Your task to perform on an android device: see sites visited before in the chrome app Image 0: 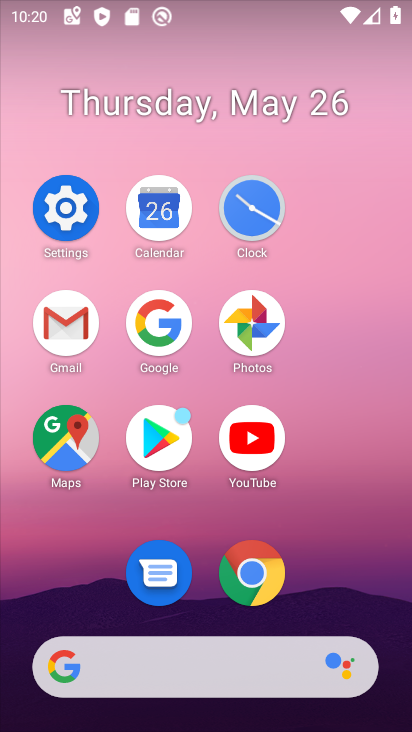
Step 0: click (274, 580)
Your task to perform on an android device: see sites visited before in the chrome app Image 1: 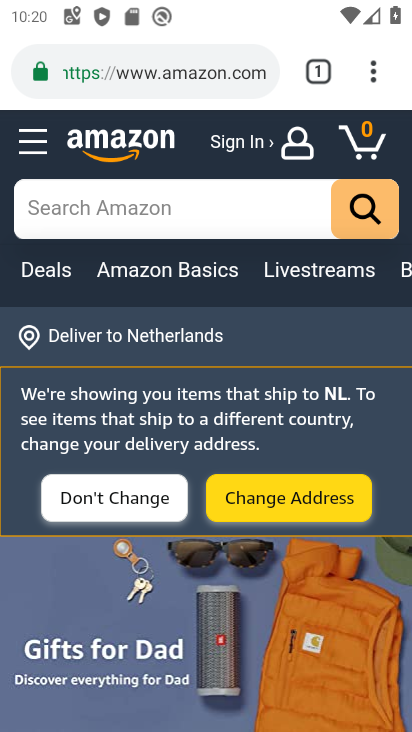
Step 1: click (373, 66)
Your task to perform on an android device: see sites visited before in the chrome app Image 2: 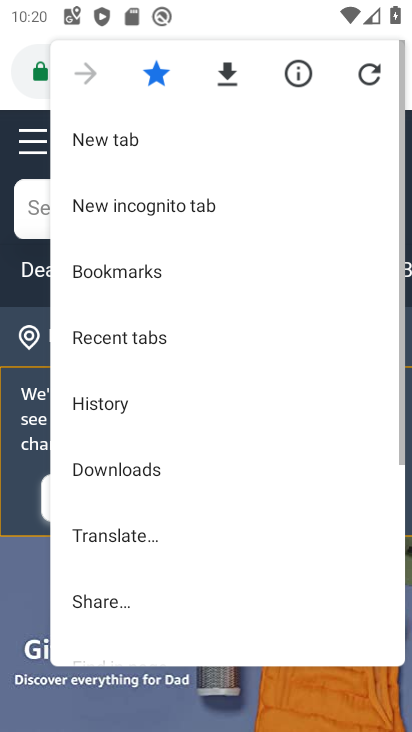
Step 2: click (152, 335)
Your task to perform on an android device: see sites visited before in the chrome app Image 3: 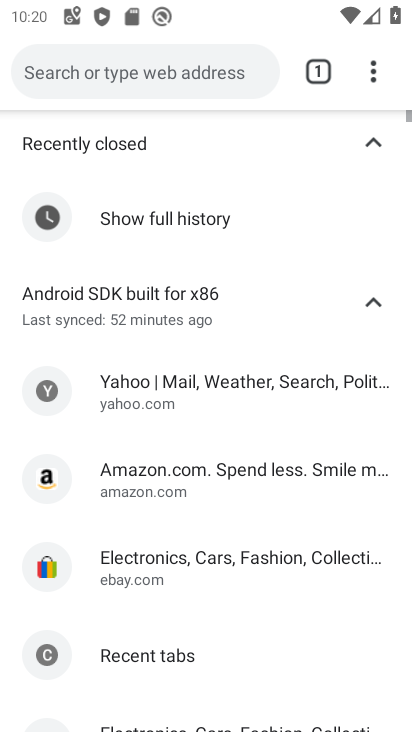
Step 3: click (127, 217)
Your task to perform on an android device: see sites visited before in the chrome app Image 4: 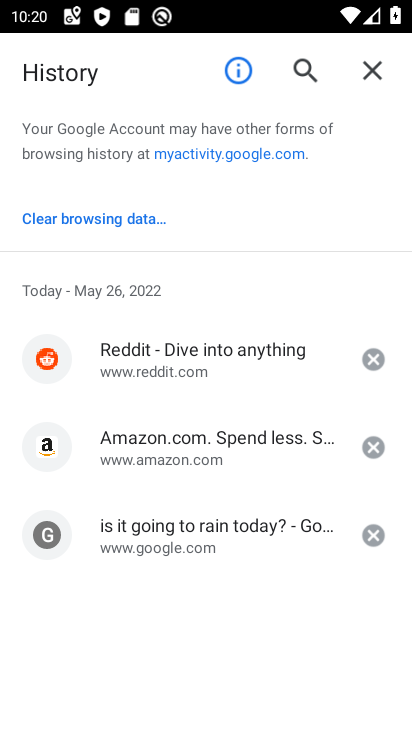
Step 4: task complete